Your task to perform on an android device: Go to Android settings Image 0: 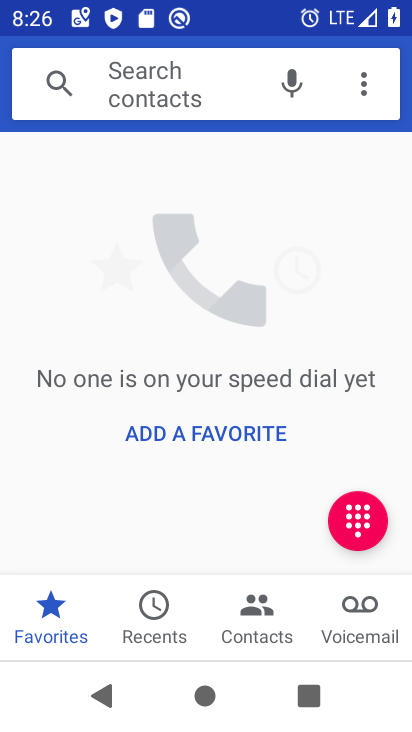
Step 0: press home button
Your task to perform on an android device: Go to Android settings Image 1: 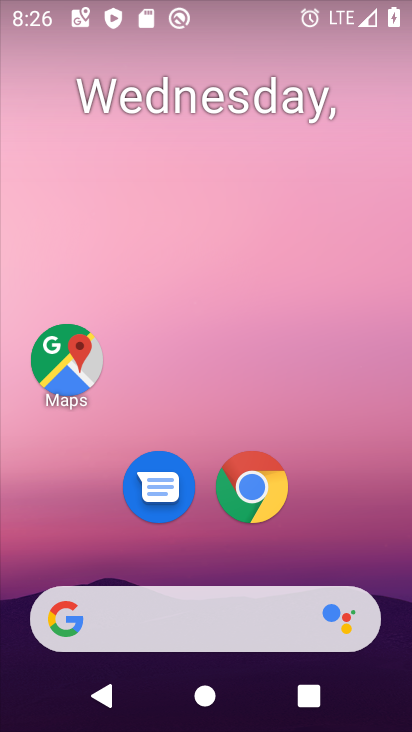
Step 1: drag from (369, 584) to (317, 4)
Your task to perform on an android device: Go to Android settings Image 2: 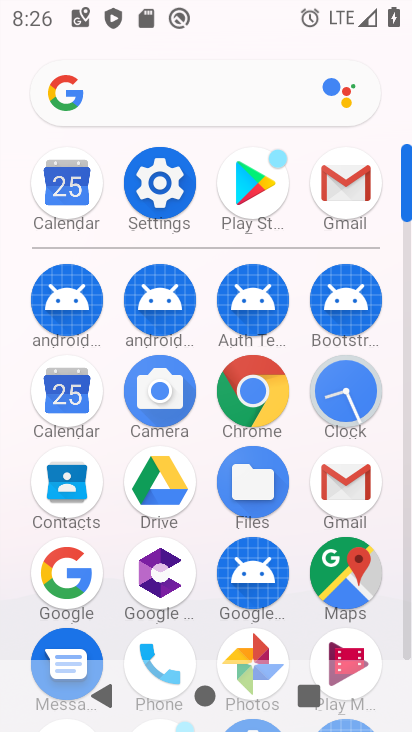
Step 2: click (162, 181)
Your task to perform on an android device: Go to Android settings Image 3: 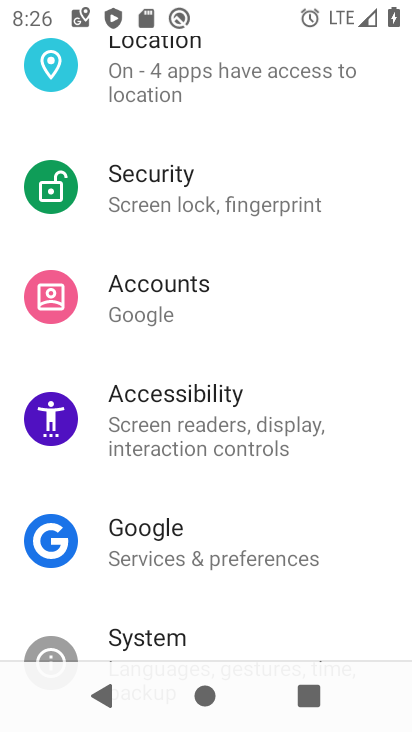
Step 3: task complete